Your task to perform on an android device: check the backup settings in the google photos Image 0: 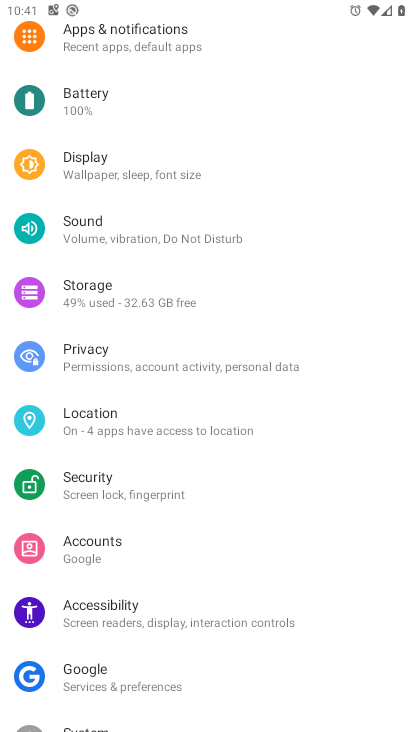
Step 0: press home button
Your task to perform on an android device: check the backup settings in the google photos Image 1: 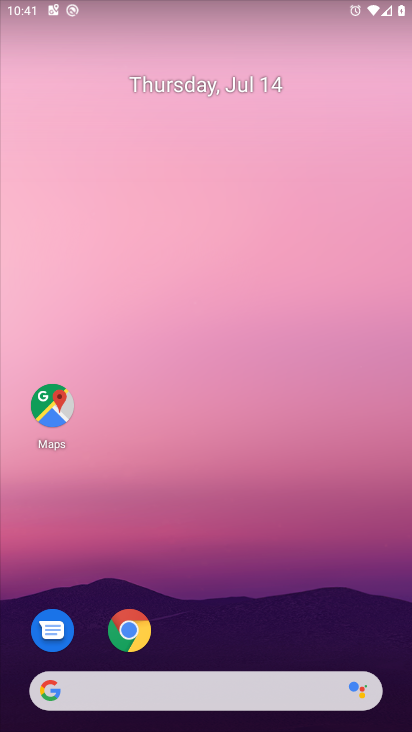
Step 1: drag from (26, 708) to (196, 89)
Your task to perform on an android device: check the backup settings in the google photos Image 2: 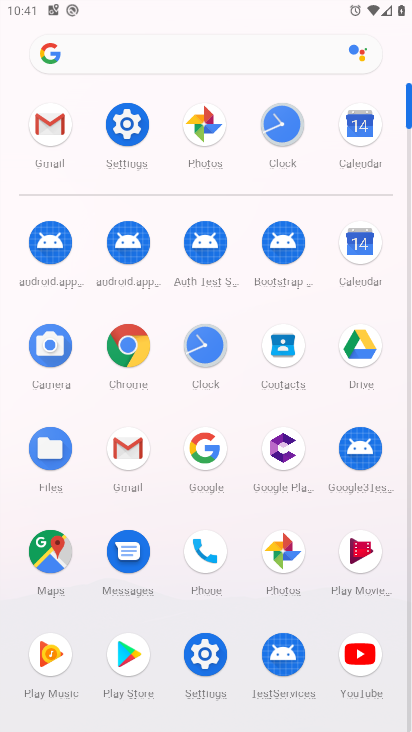
Step 2: click (282, 553)
Your task to perform on an android device: check the backup settings in the google photos Image 3: 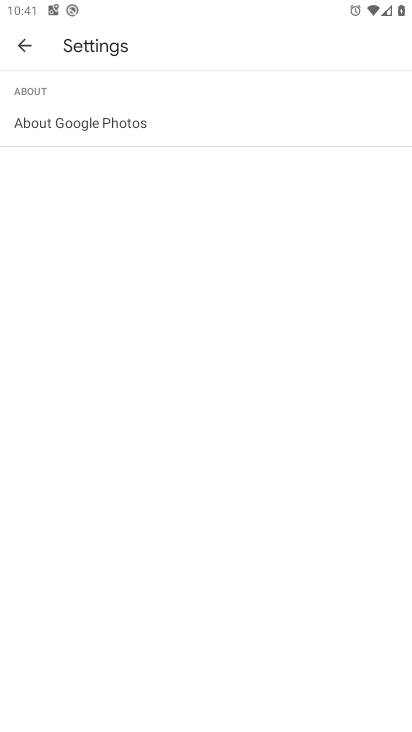
Step 3: click (19, 57)
Your task to perform on an android device: check the backup settings in the google photos Image 4: 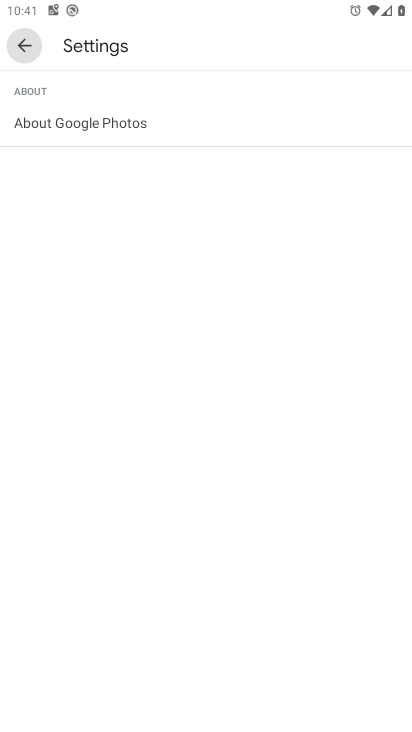
Step 4: click (20, 53)
Your task to perform on an android device: check the backup settings in the google photos Image 5: 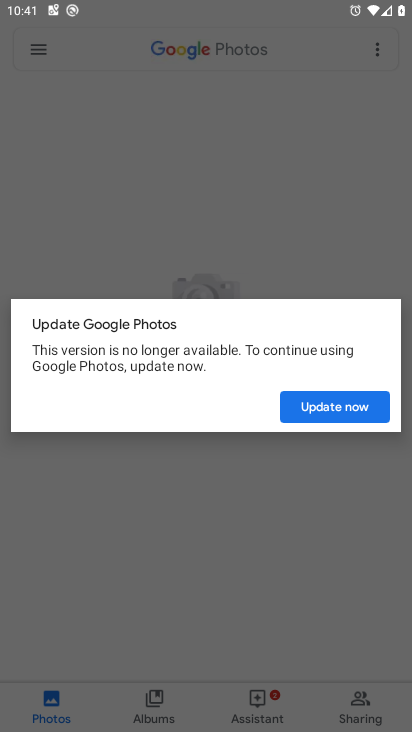
Step 5: click (305, 407)
Your task to perform on an android device: check the backup settings in the google photos Image 6: 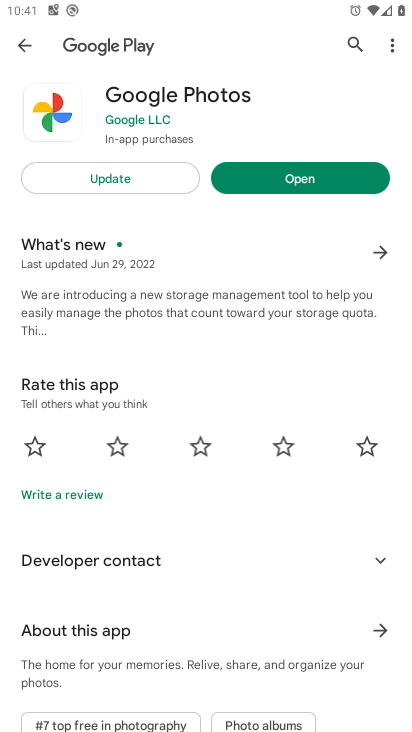
Step 6: click (297, 152)
Your task to perform on an android device: check the backup settings in the google photos Image 7: 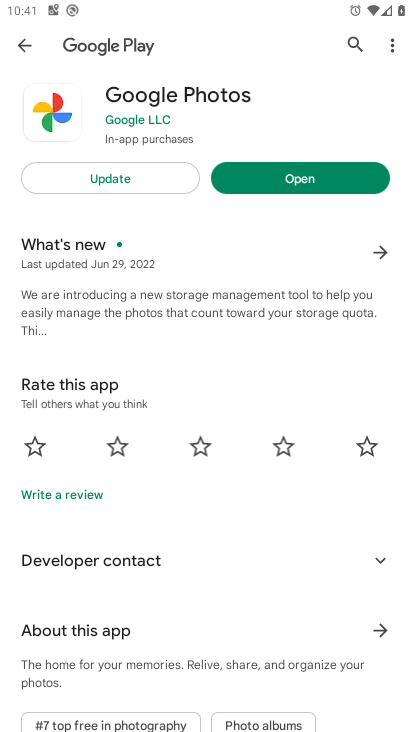
Step 7: click (264, 191)
Your task to perform on an android device: check the backup settings in the google photos Image 8: 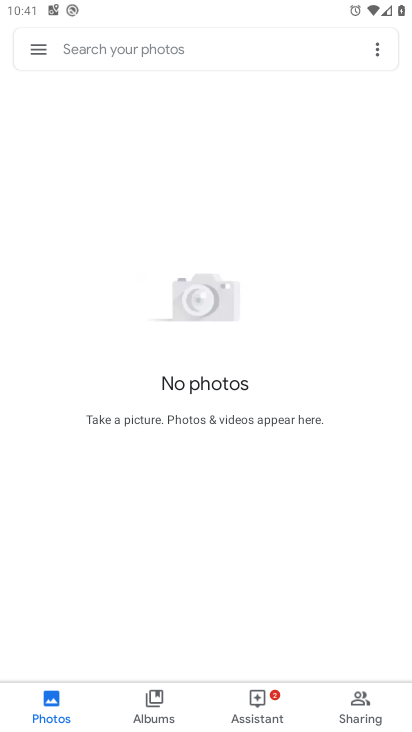
Step 8: click (35, 48)
Your task to perform on an android device: check the backup settings in the google photos Image 9: 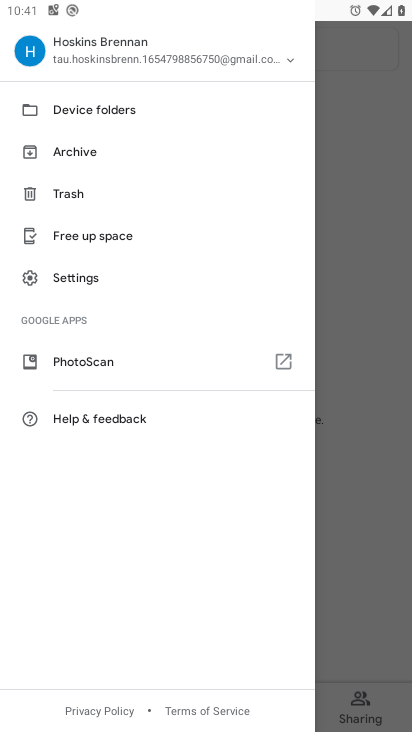
Step 9: click (71, 280)
Your task to perform on an android device: check the backup settings in the google photos Image 10: 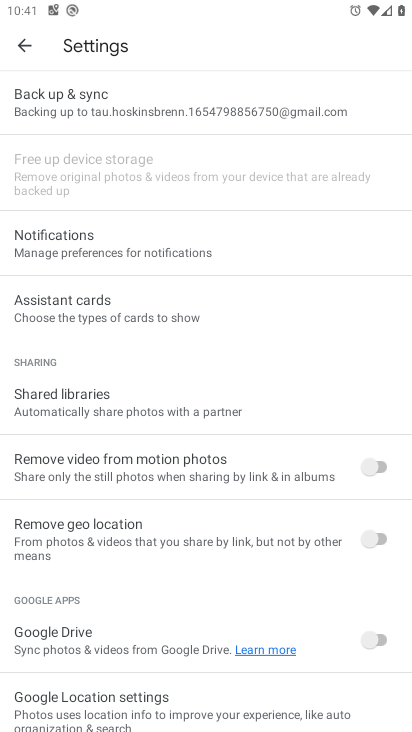
Step 10: click (129, 102)
Your task to perform on an android device: check the backup settings in the google photos Image 11: 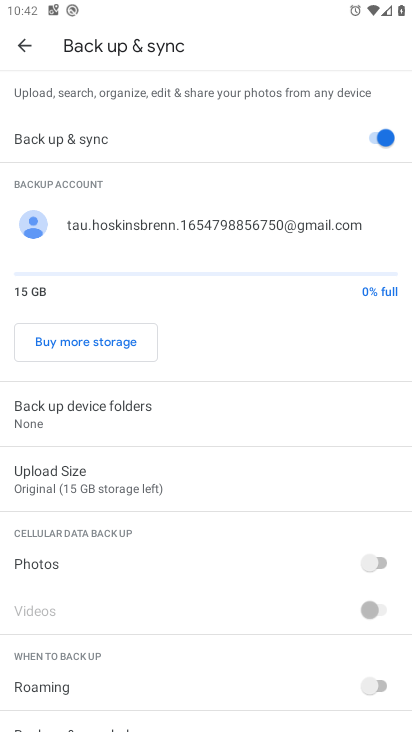
Step 11: task complete